Your task to perform on an android device: open chrome and create a bookmark for the current page Image 0: 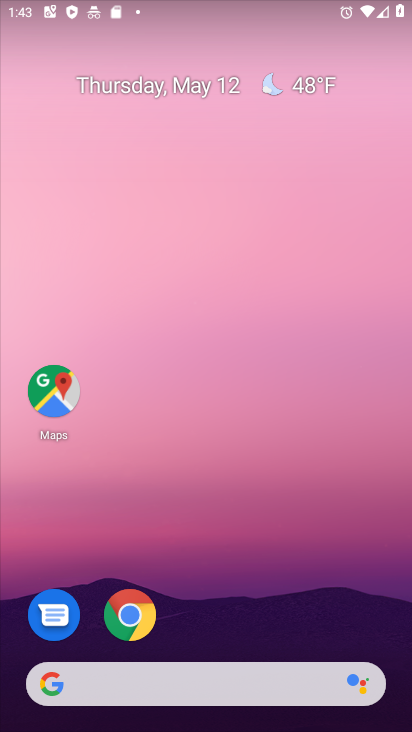
Step 0: drag from (269, 656) to (368, 35)
Your task to perform on an android device: open chrome and create a bookmark for the current page Image 1: 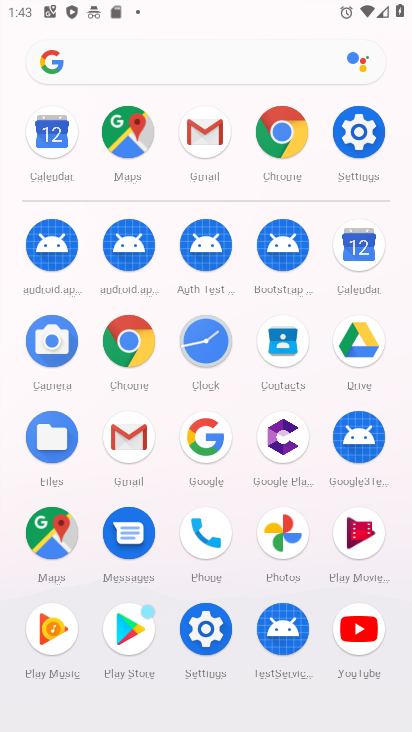
Step 1: click (140, 330)
Your task to perform on an android device: open chrome and create a bookmark for the current page Image 2: 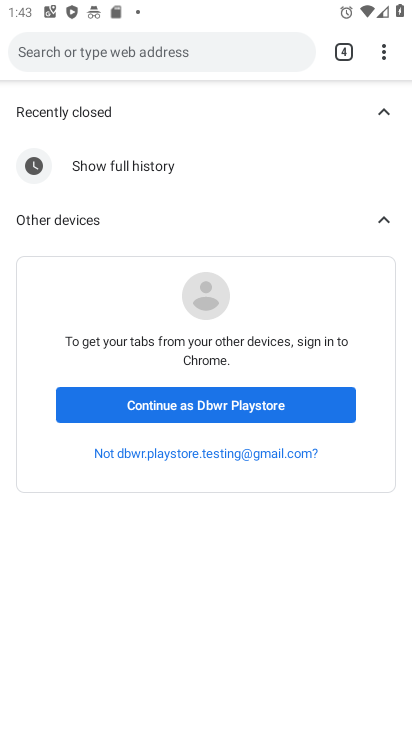
Step 2: task complete